Your task to perform on an android device: Open battery settings Image 0: 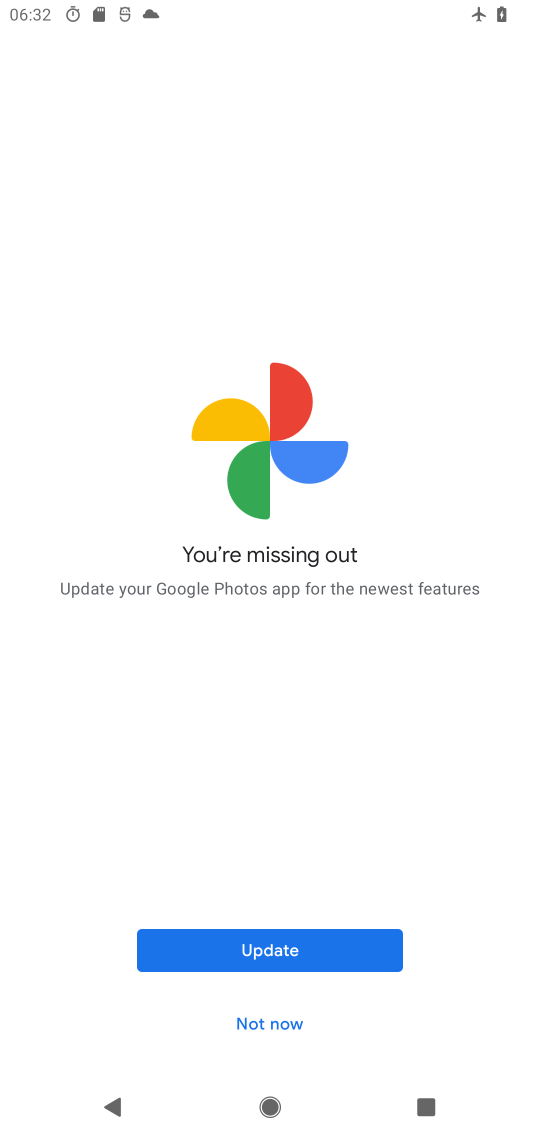
Step 0: press home button
Your task to perform on an android device: Open battery settings Image 1: 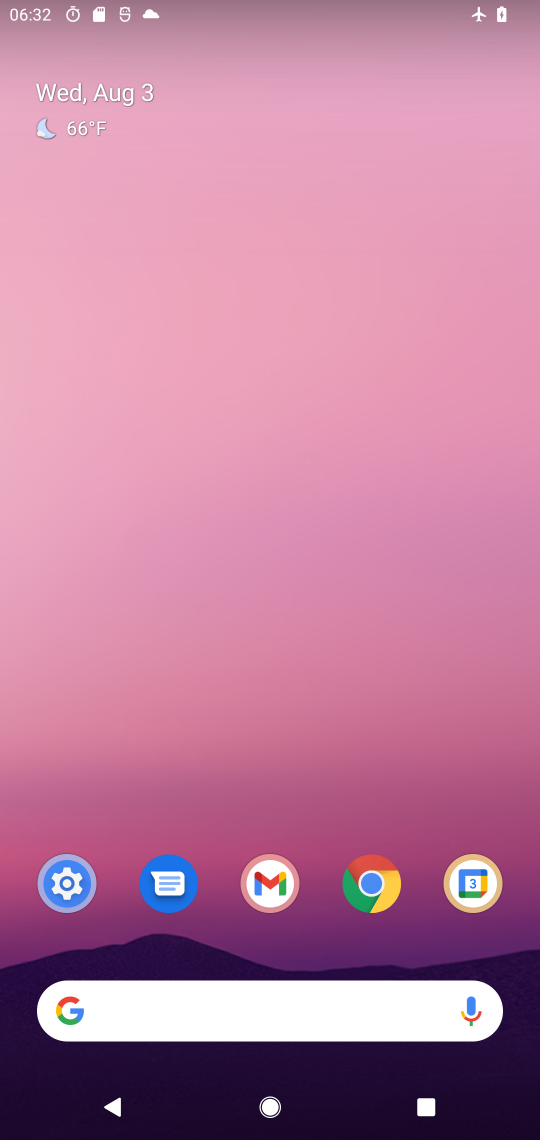
Step 1: drag from (353, 954) to (359, 362)
Your task to perform on an android device: Open battery settings Image 2: 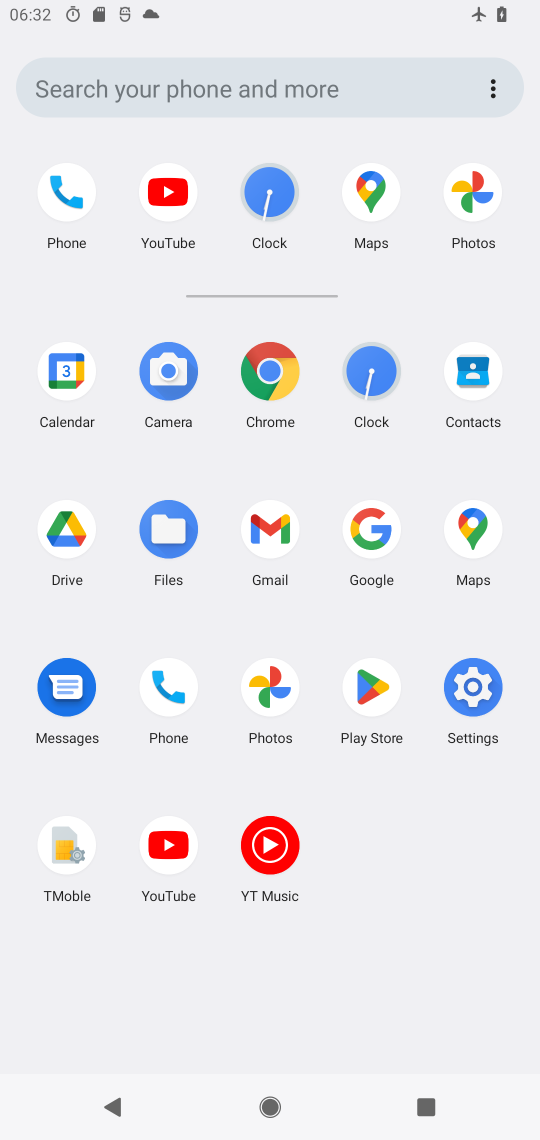
Step 2: click (482, 693)
Your task to perform on an android device: Open battery settings Image 3: 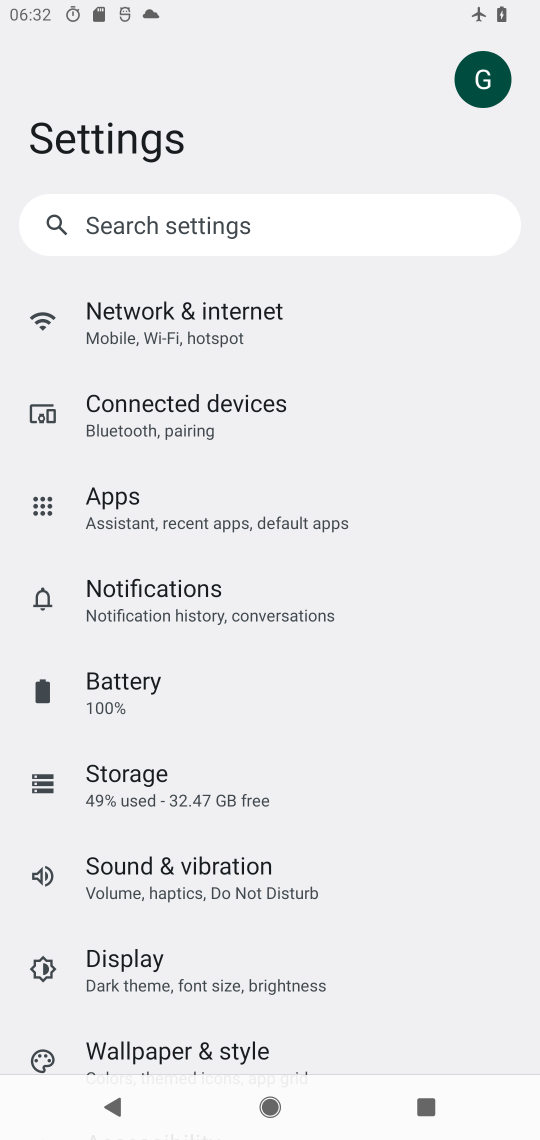
Step 3: click (143, 687)
Your task to perform on an android device: Open battery settings Image 4: 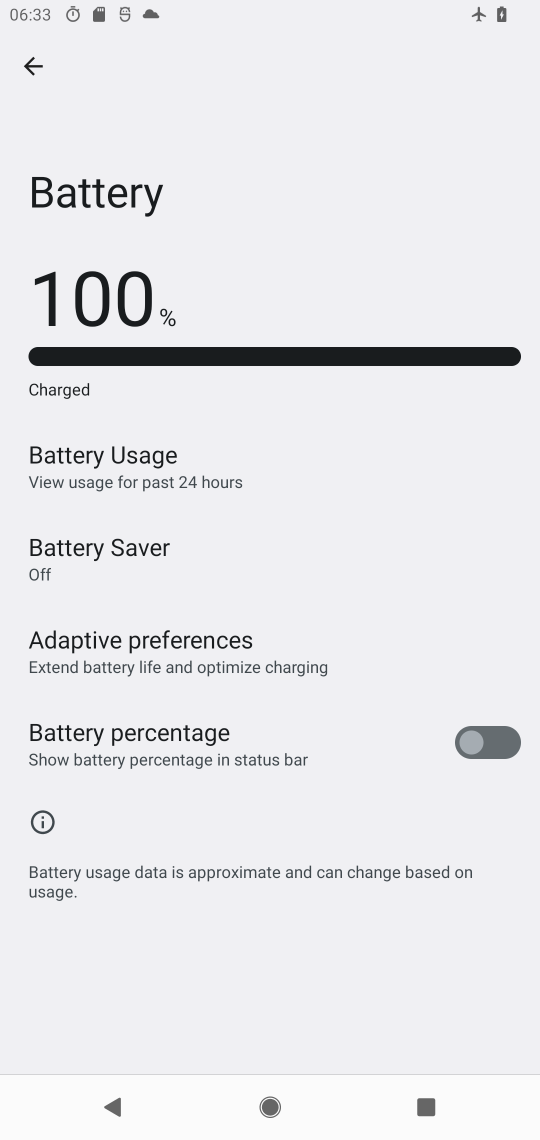
Step 4: task complete